Your task to perform on an android device: Go to Wikipedia Image 0: 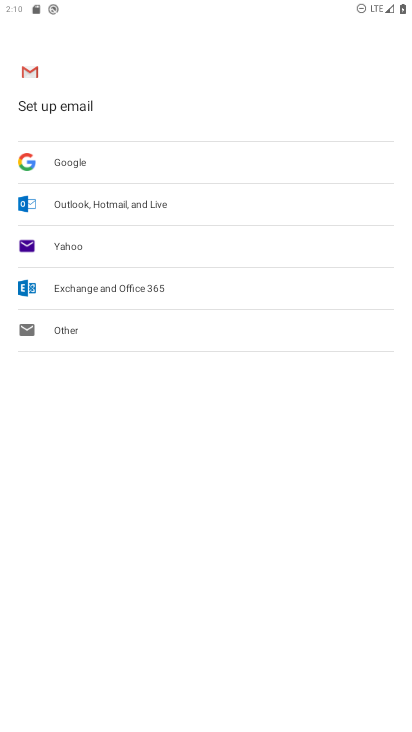
Step 0: press home button
Your task to perform on an android device: Go to Wikipedia Image 1: 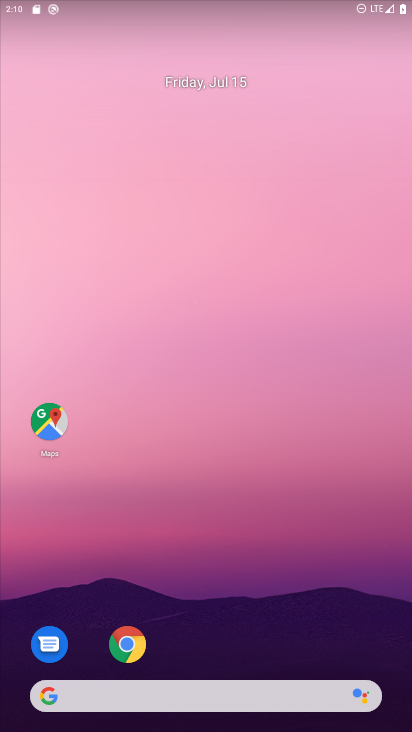
Step 1: click (115, 644)
Your task to perform on an android device: Go to Wikipedia Image 2: 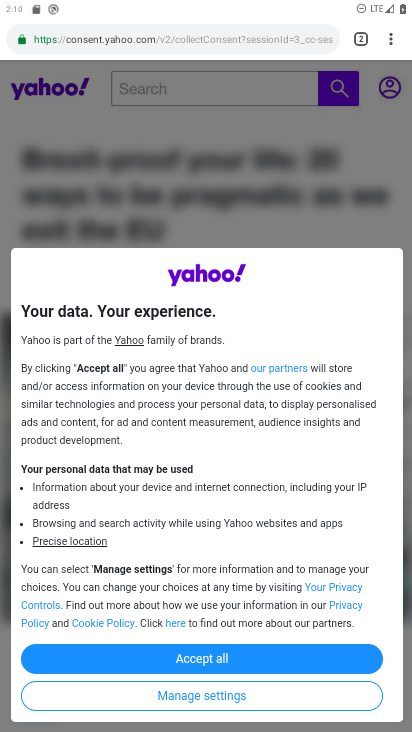
Step 2: click (359, 43)
Your task to perform on an android device: Go to Wikipedia Image 3: 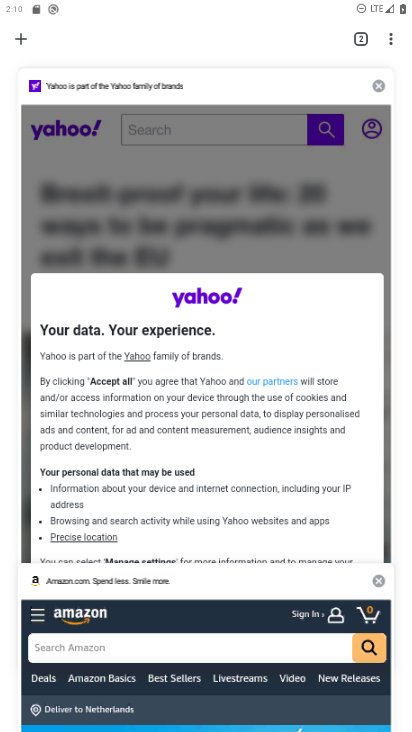
Step 3: click (373, 86)
Your task to perform on an android device: Go to Wikipedia Image 4: 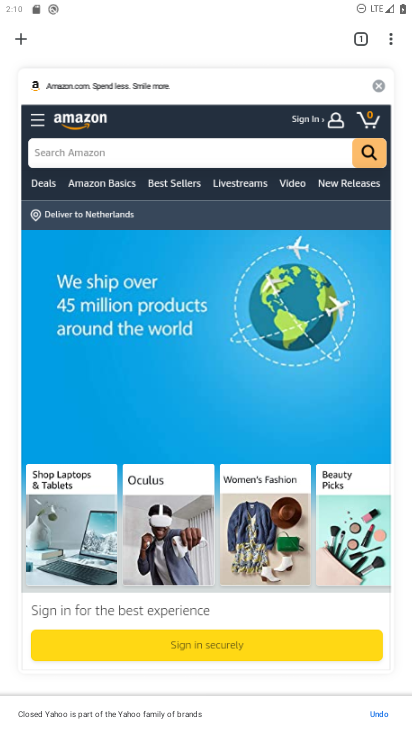
Step 4: click (380, 84)
Your task to perform on an android device: Go to Wikipedia Image 5: 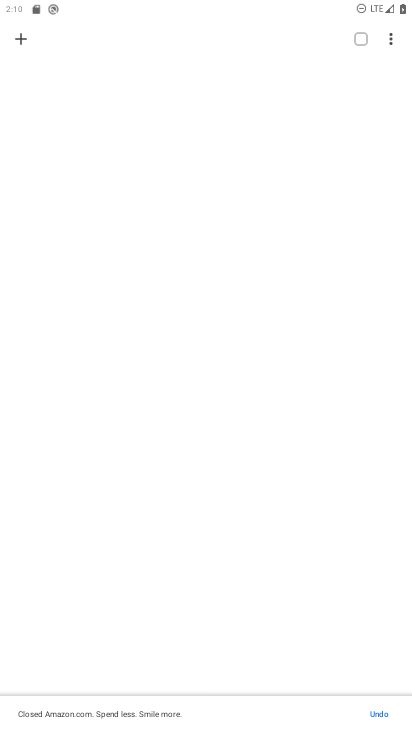
Step 5: click (26, 40)
Your task to perform on an android device: Go to Wikipedia Image 6: 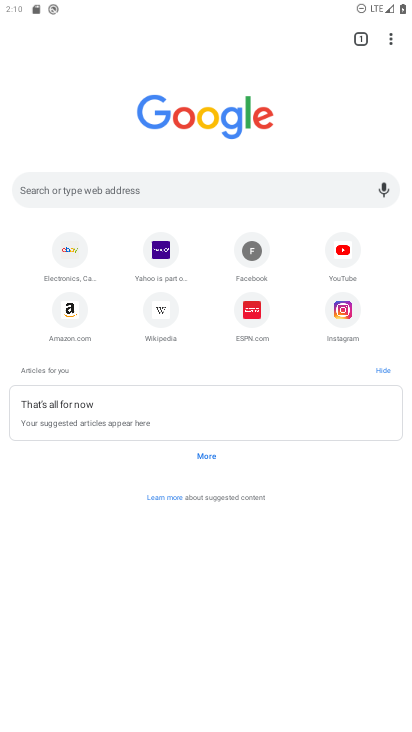
Step 6: click (165, 306)
Your task to perform on an android device: Go to Wikipedia Image 7: 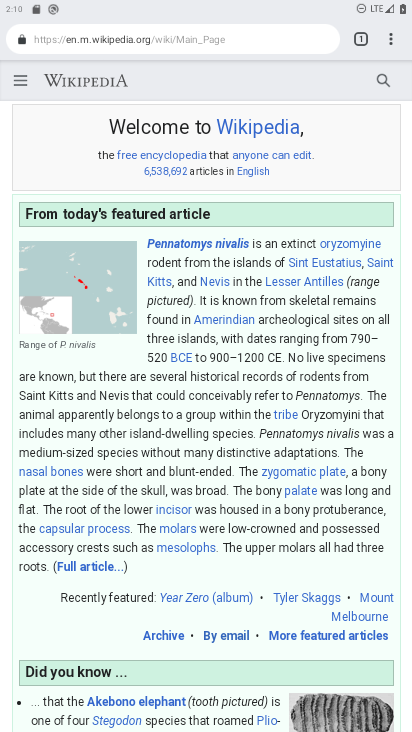
Step 7: task complete